Your task to perform on an android device: Open Yahoo.com Image 0: 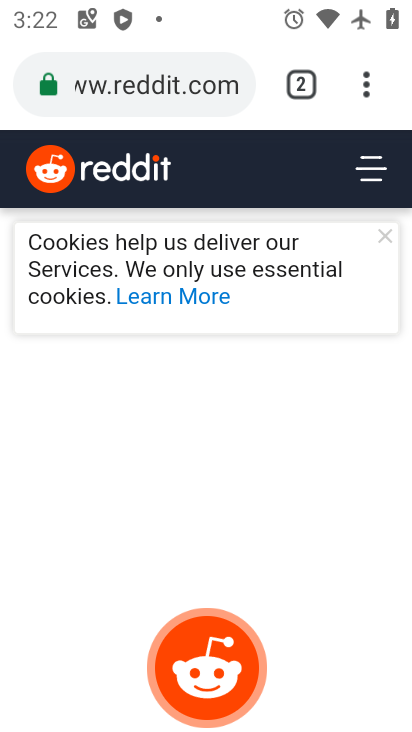
Step 0: click (128, 68)
Your task to perform on an android device: Open Yahoo.com Image 1: 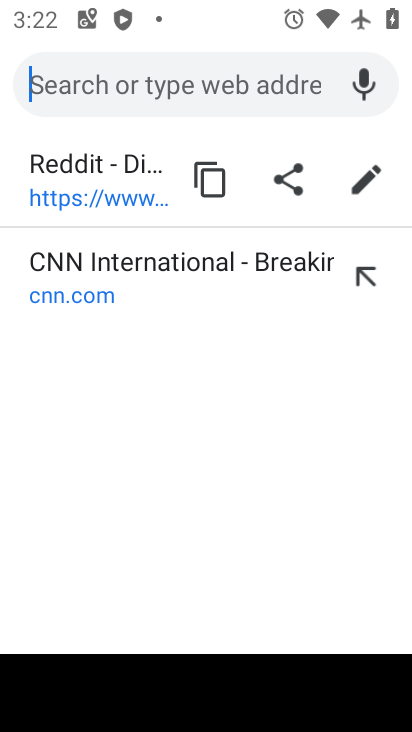
Step 1: type "yahoo.com"
Your task to perform on an android device: Open Yahoo.com Image 2: 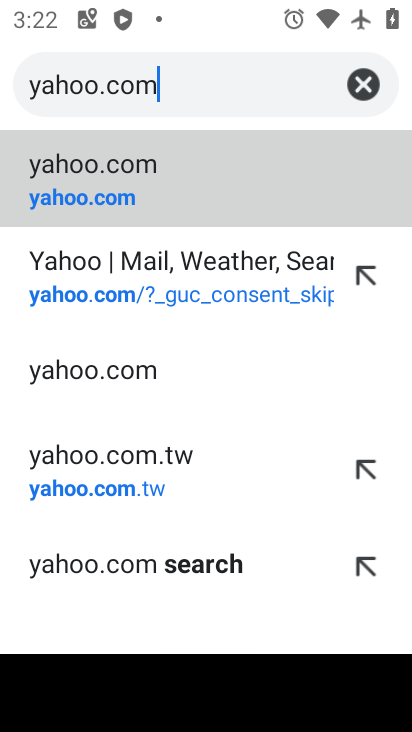
Step 2: click (89, 180)
Your task to perform on an android device: Open Yahoo.com Image 3: 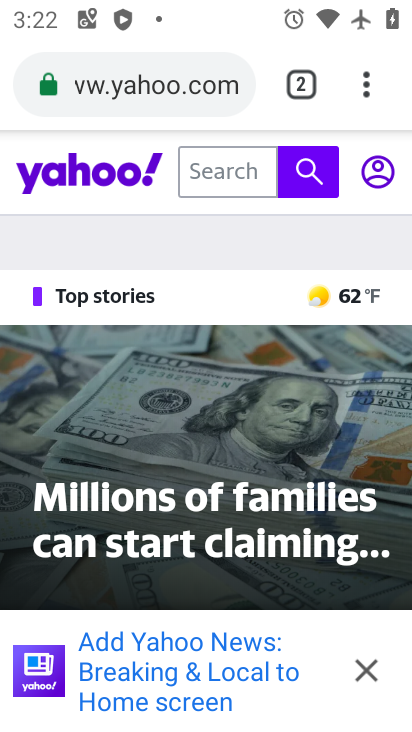
Step 3: task complete